Your task to perform on an android device: Go to Amazon Image 0: 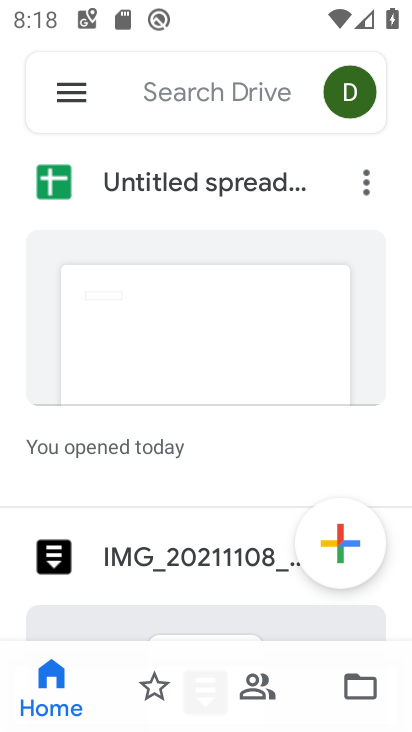
Step 0: press back button
Your task to perform on an android device: Go to Amazon Image 1: 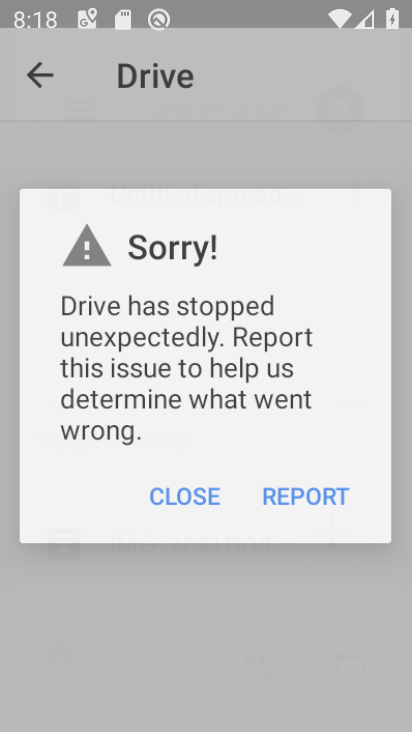
Step 1: press home button
Your task to perform on an android device: Go to Amazon Image 2: 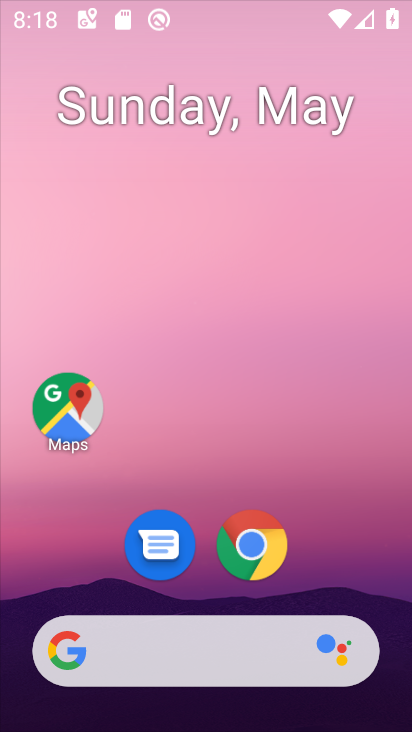
Step 2: press home button
Your task to perform on an android device: Go to Amazon Image 3: 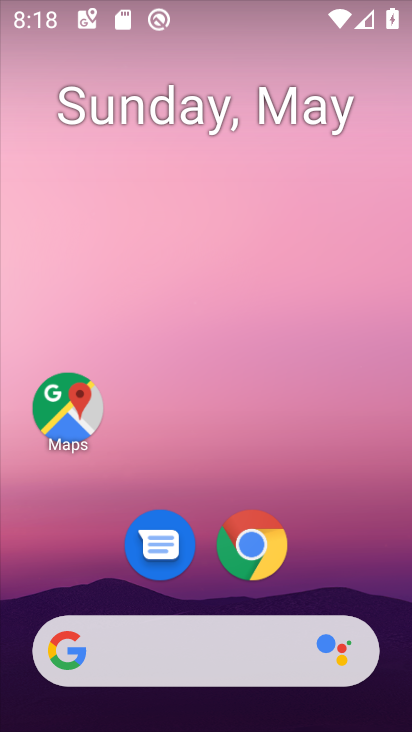
Step 3: click (250, 566)
Your task to perform on an android device: Go to Amazon Image 4: 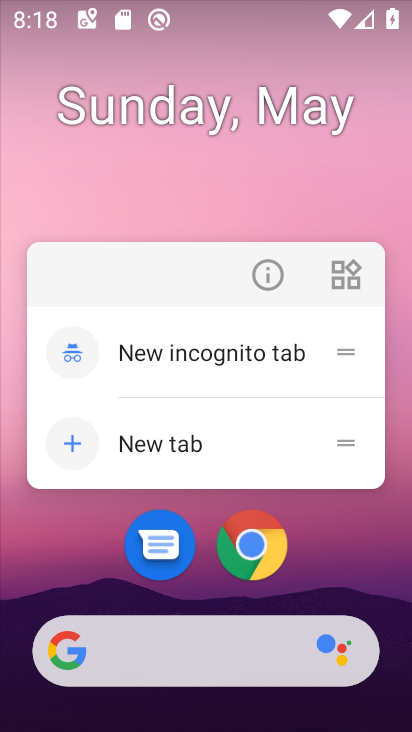
Step 4: click (255, 540)
Your task to perform on an android device: Go to Amazon Image 5: 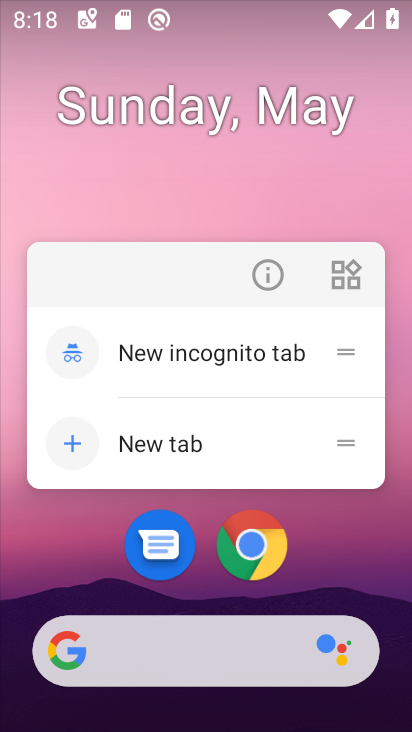
Step 5: click (257, 547)
Your task to perform on an android device: Go to Amazon Image 6: 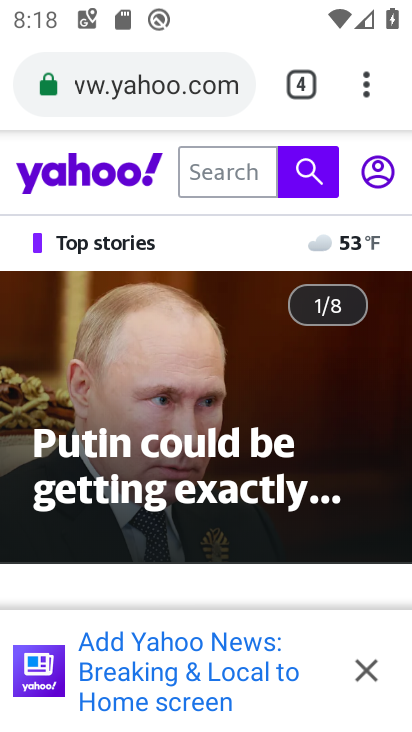
Step 6: drag from (376, 75) to (369, 173)
Your task to perform on an android device: Go to Amazon Image 7: 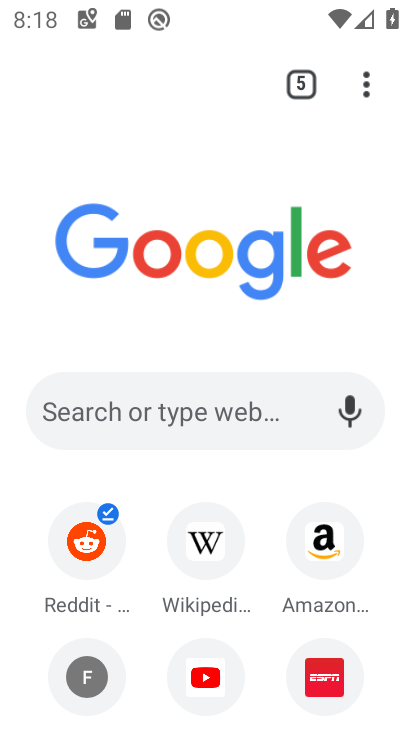
Step 7: click (339, 548)
Your task to perform on an android device: Go to Amazon Image 8: 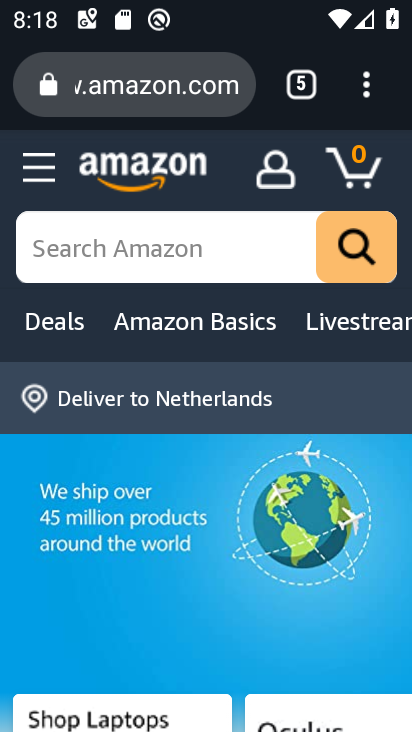
Step 8: task complete